Your task to perform on an android device: open app "McDonald's" (install if not already installed) Image 0: 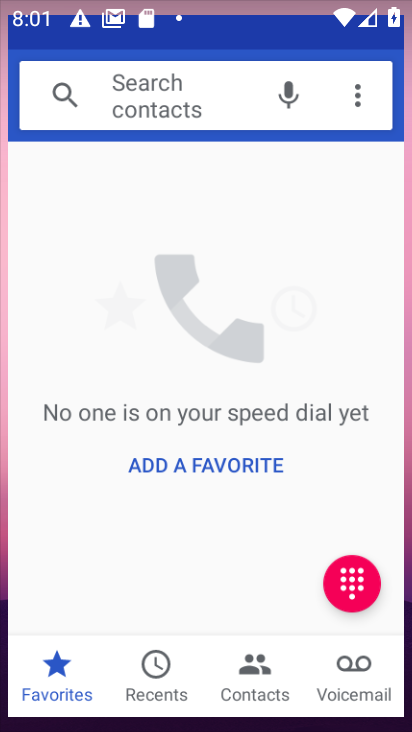
Step 0: drag from (217, 591) to (226, 235)
Your task to perform on an android device: open app "McDonald's" (install if not already installed) Image 1: 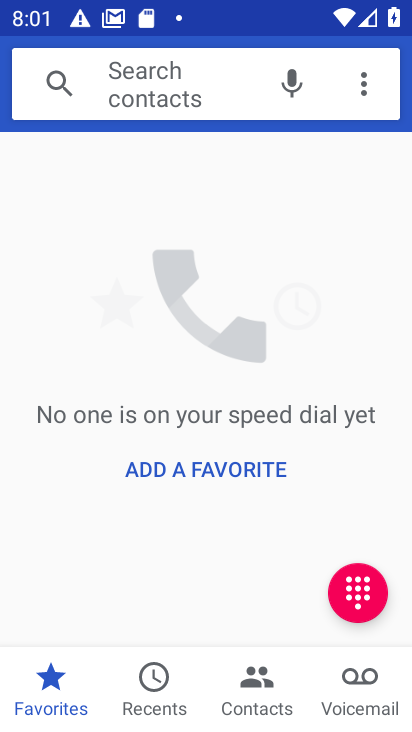
Step 1: drag from (223, 587) to (229, 246)
Your task to perform on an android device: open app "McDonald's" (install if not already installed) Image 2: 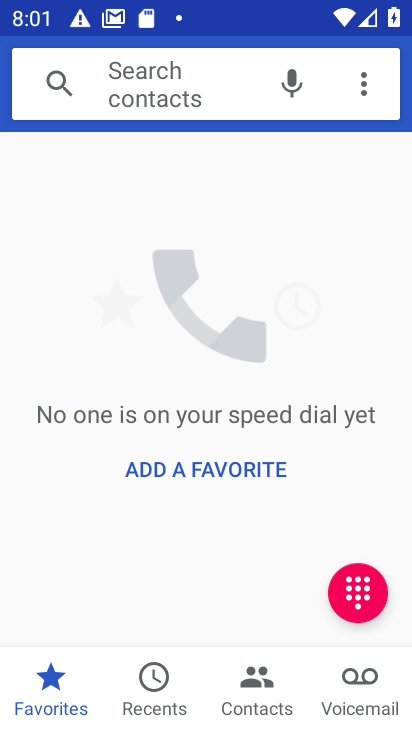
Step 2: drag from (215, 543) to (212, 368)
Your task to perform on an android device: open app "McDonald's" (install if not already installed) Image 3: 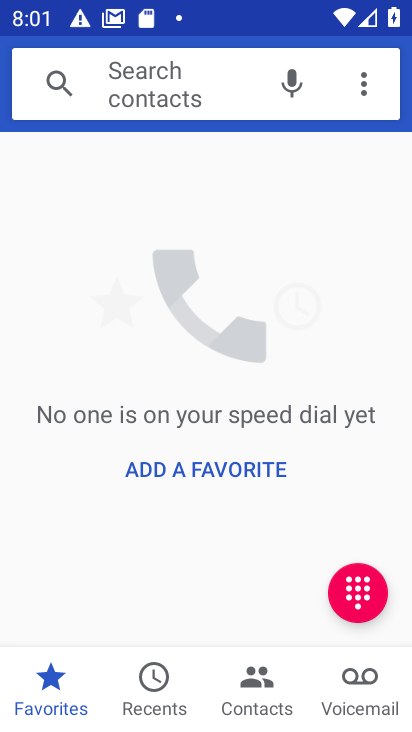
Step 3: drag from (281, 519) to (275, 287)
Your task to perform on an android device: open app "McDonald's" (install if not already installed) Image 4: 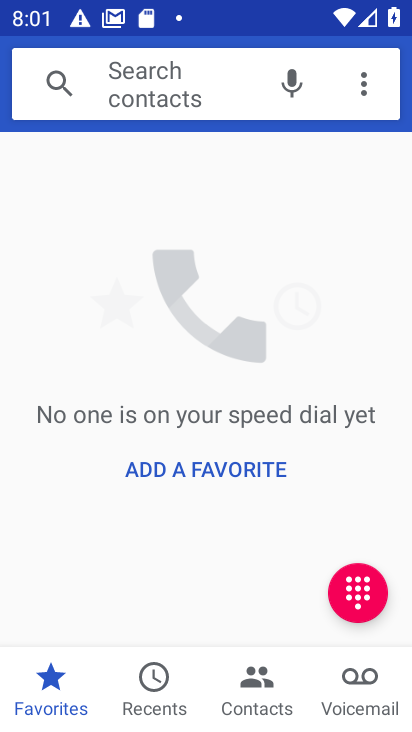
Step 4: press home button
Your task to perform on an android device: open app "McDonald's" (install if not already installed) Image 5: 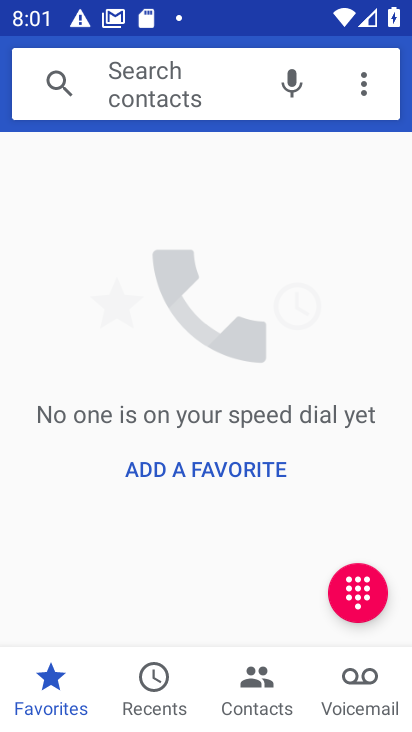
Step 5: press home button
Your task to perform on an android device: open app "McDonald's" (install if not already installed) Image 6: 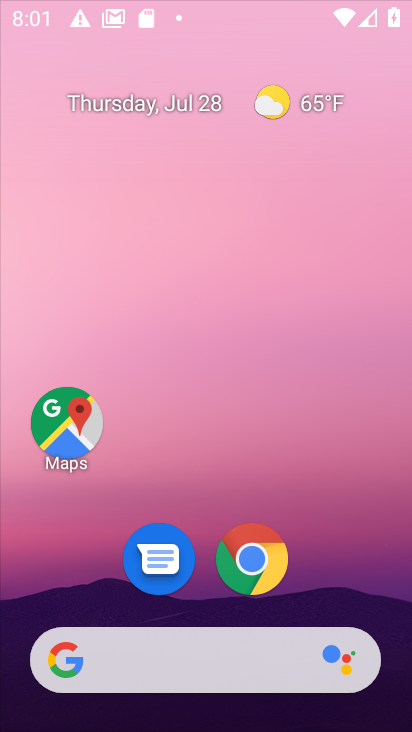
Step 6: press home button
Your task to perform on an android device: open app "McDonald's" (install if not already installed) Image 7: 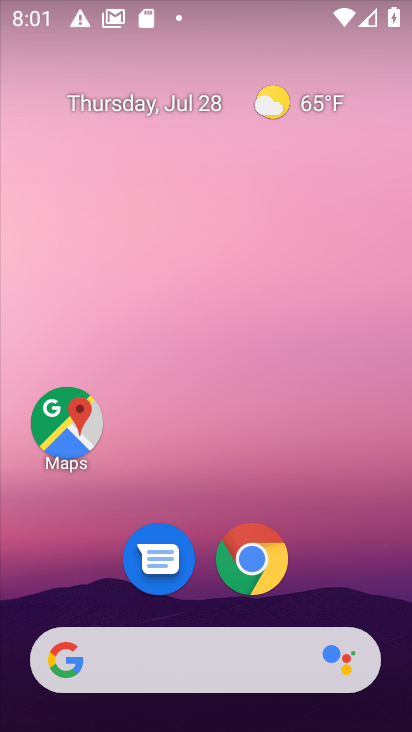
Step 7: drag from (199, 608) to (230, 313)
Your task to perform on an android device: open app "McDonald's" (install if not already installed) Image 8: 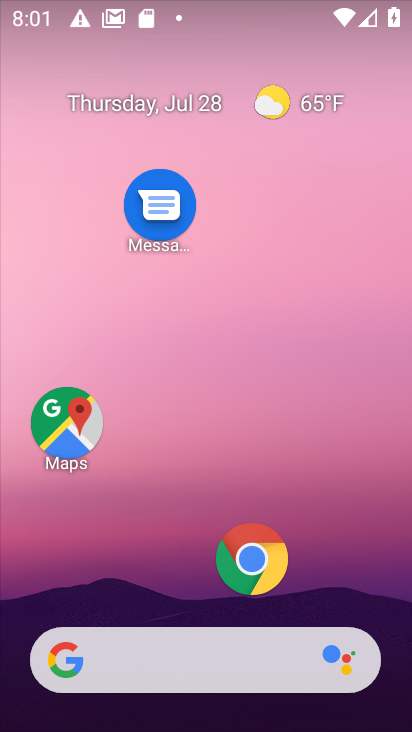
Step 8: drag from (184, 590) to (228, 242)
Your task to perform on an android device: open app "McDonald's" (install if not already installed) Image 9: 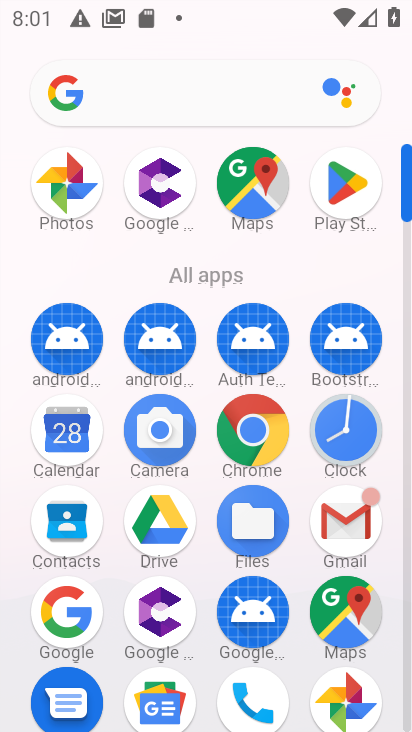
Step 9: click (334, 184)
Your task to perform on an android device: open app "McDonald's" (install if not already installed) Image 10: 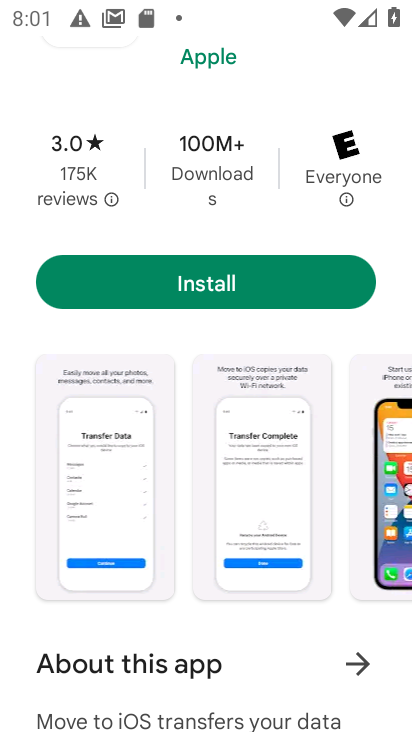
Step 10: drag from (271, 110) to (268, 535)
Your task to perform on an android device: open app "McDonald's" (install if not already installed) Image 11: 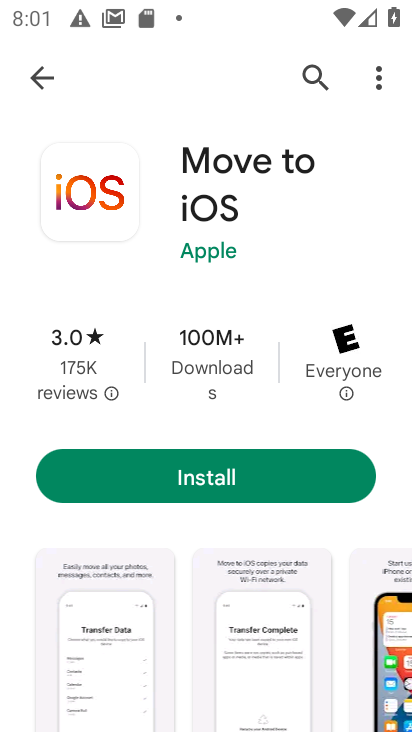
Step 11: click (322, 67)
Your task to perform on an android device: open app "McDonald's" (install if not already installed) Image 12: 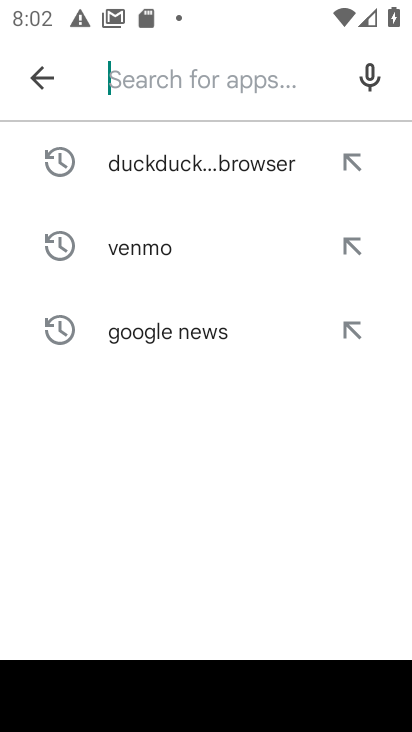
Step 12: type "McDonald's"
Your task to perform on an android device: open app "McDonald's" (install if not already installed) Image 13: 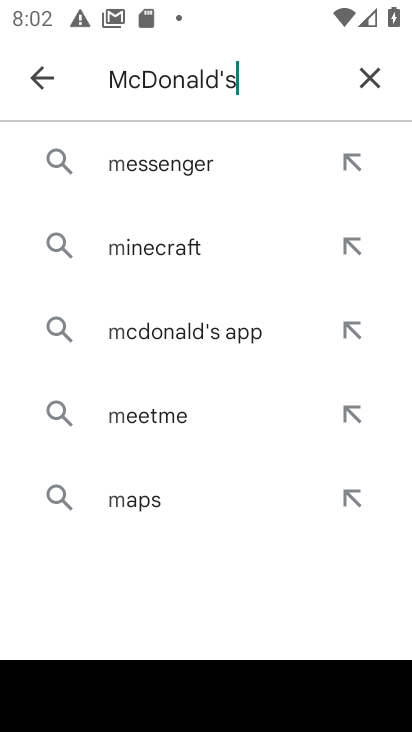
Step 13: type ""
Your task to perform on an android device: open app "McDonald's" (install if not already installed) Image 14: 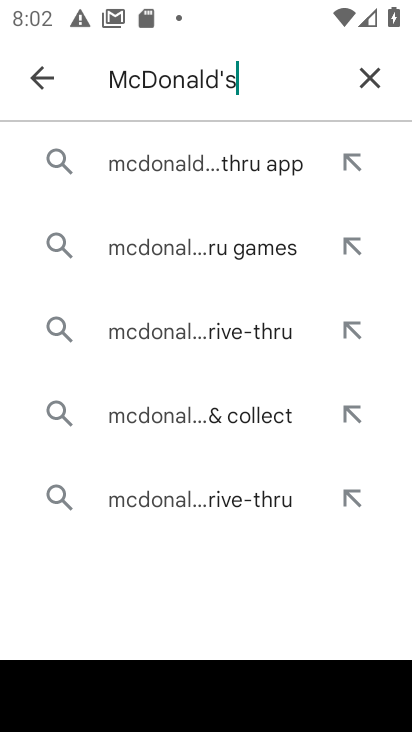
Step 14: click (166, 176)
Your task to perform on an android device: open app "McDonald's" (install if not already installed) Image 15: 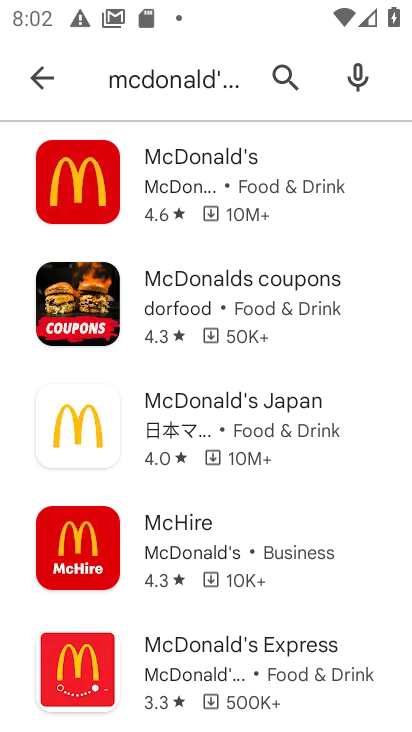
Step 15: click (168, 198)
Your task to perform on an android device: open app "McDonald's" (install if not already installed) Image 16: 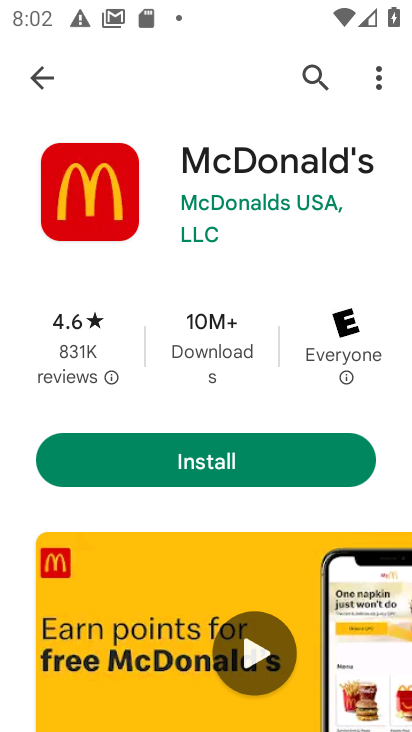
Step 16: click (144, 473)
Your task to perform on an android device: open app "McDonald's" (install if not already installed) Image 17: 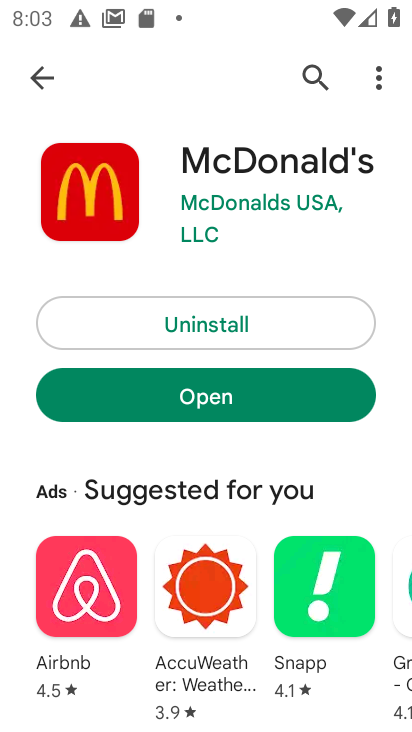
Step 17: click (186, 413)
Your task to perform on an android device: open app "McDonald's" (install if not already installed) Image 18: 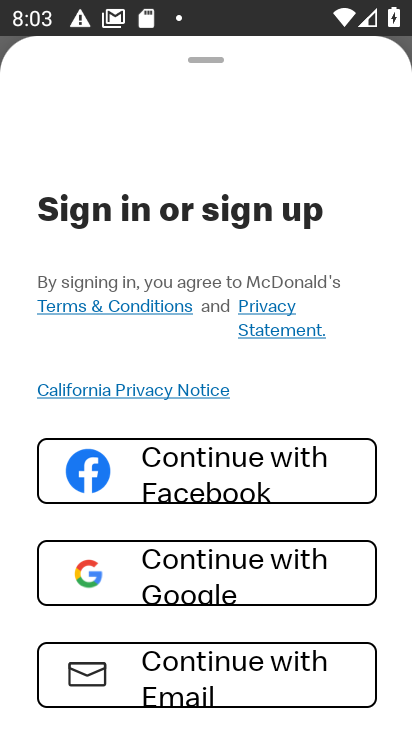
Step 18: press home button
Your task to perform on an android device: open app "McDonald's" (install if not already installed) Image 19: 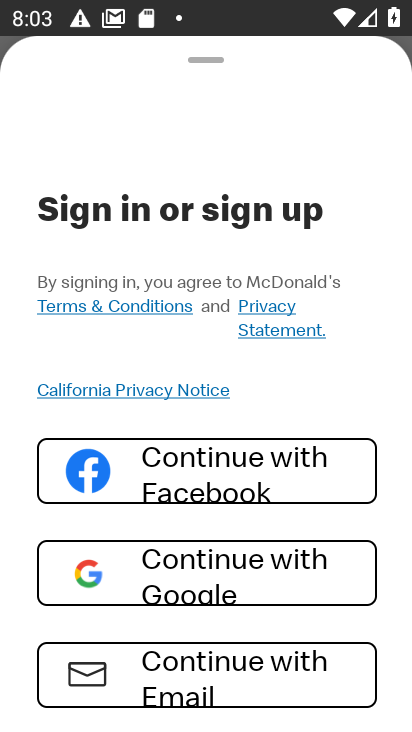
Step 19: drag from (198, 659) to (228, 202)
Your task to perform on an android device: open app "McDonald's" (install if not already installed) Image 20: 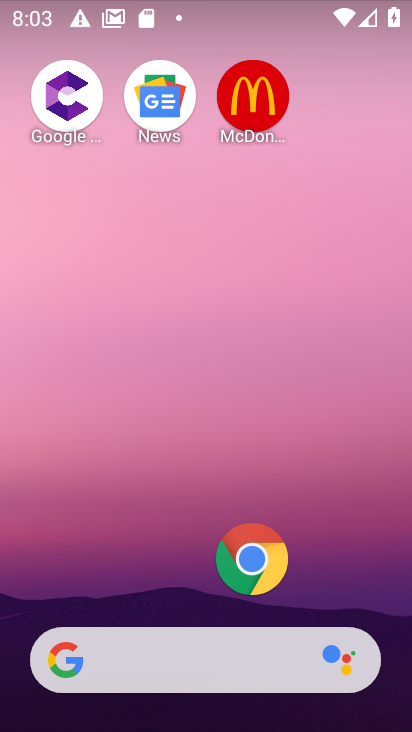
Step 20: drag from (198, 565) to (209, 176)
Your task to perform on an android device: open app "McDonald's" (install if not already installed) Image 21: 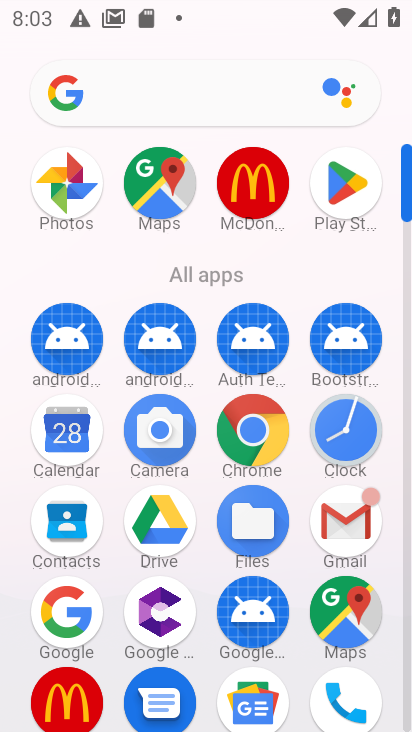
Step 21: click (256, 188)
Your task to perform on an android device: open app "McDonald's" (install if not already installed) Image 22: 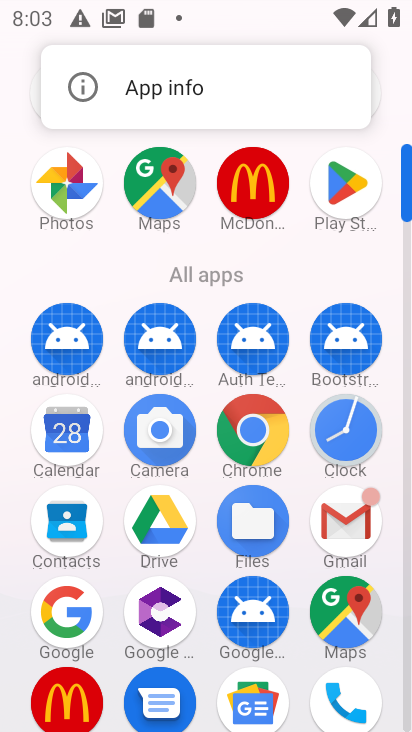
Step 22: click (143, 103)
Your task to perform on an android device: open app "McDonald's" (install if not already installed) Image 23: 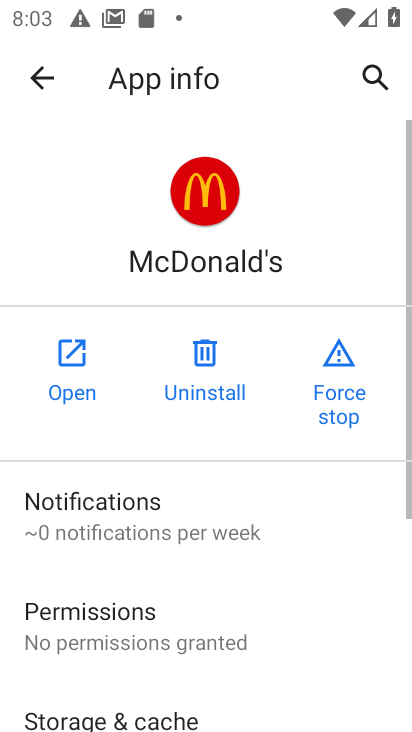
Step 23: click (66, 377)
Your task to perform on an android device: open app "McDonald's" (install if not already installed) Image 24: 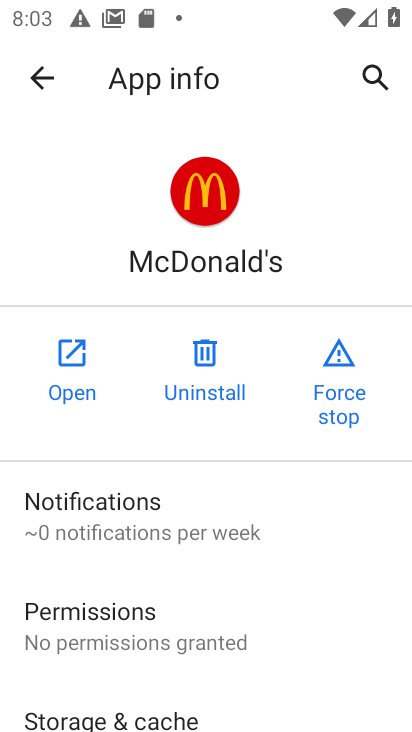
Step 24: task complete